Your task to perform on an android device: change the clock display to digital Image 0: 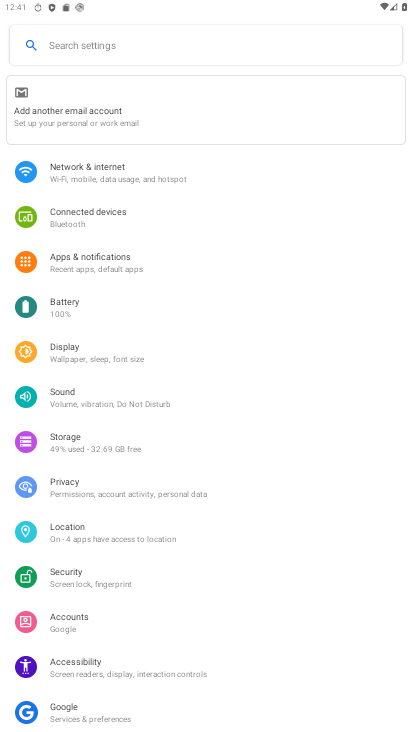
Step 0: press home button
Your task to perform on an android device: change the clock display to digital Image 1: 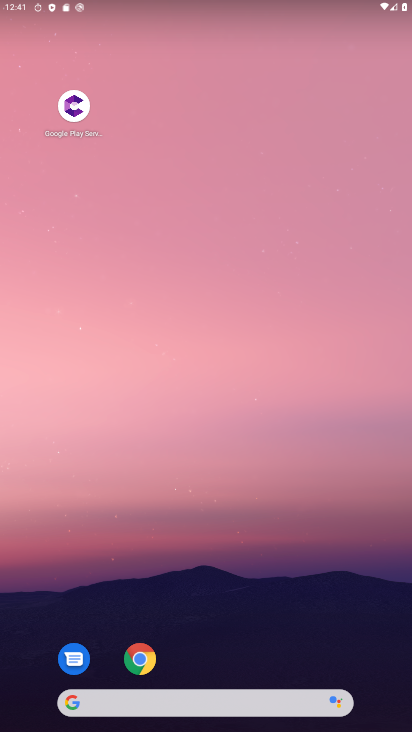
Step 1: drag from (298, 592) to (314, 106)
Your task to perform on an android device: change the clock display to digital Image 2: 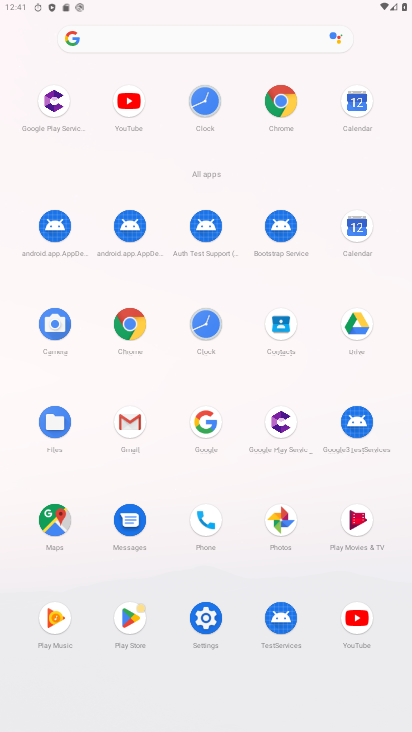
Step 2: click (211, 328)
Your task to perform on an android device: change the clock display to digital Image 3: 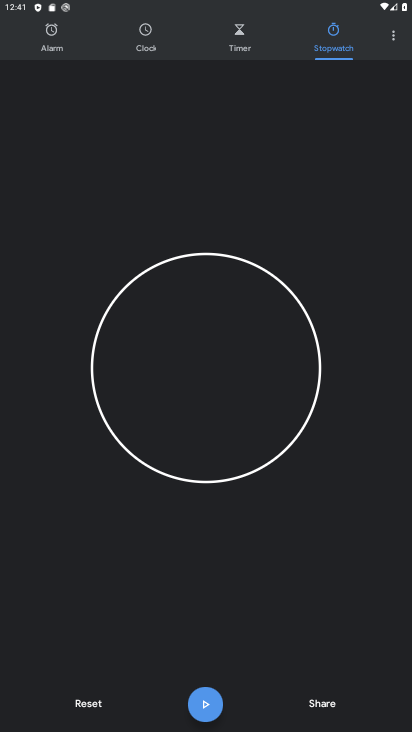
Step 3: click (393, 36)
Your task to perform on an android device: change the clock display to digital Image 4: 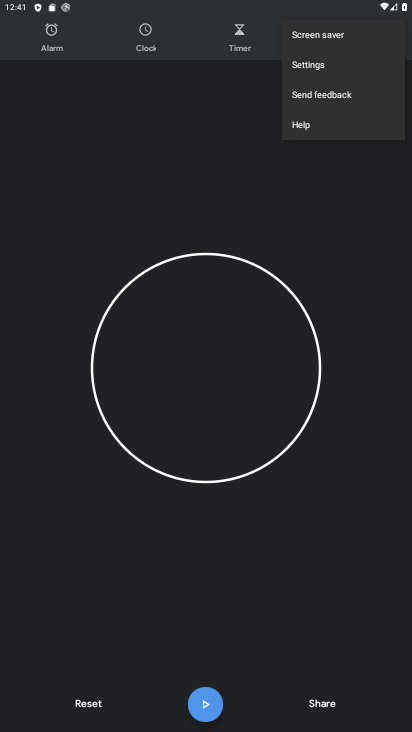
Step 4: click (310, 74)
Your task to perform on an android device: change the clock display to digital Image 5: 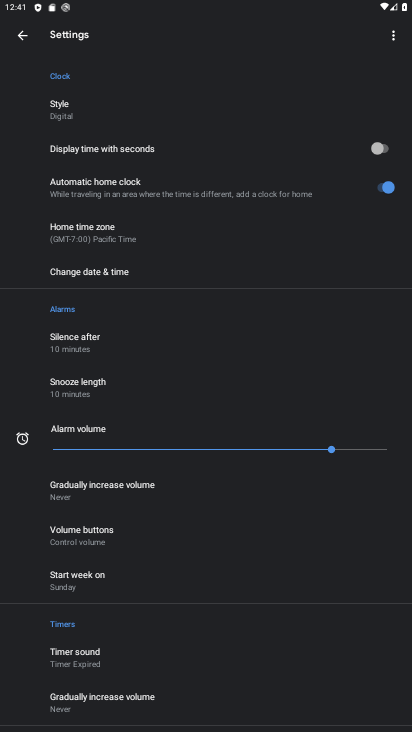
Step 5: task complete